Your task to perform on an android device: Check the news Image 0: 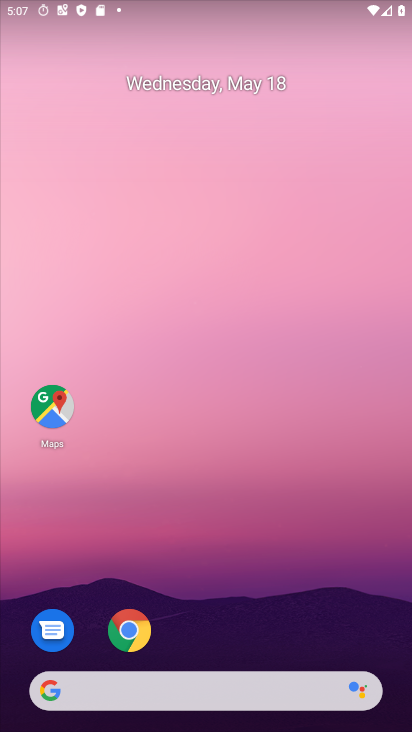
Step 0: drag from (172, 662) to (199, 298)
Your task to perform on an android device: Check the news Image 1: 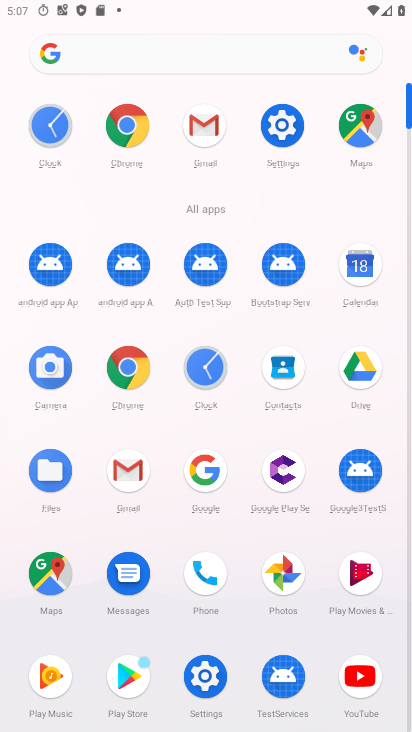
Step 1: click (188, 472)
Your task to perform on an android device: Check the news Image 2: 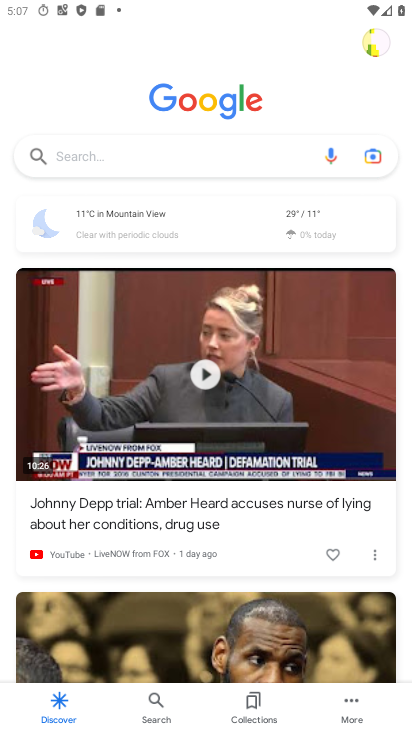
Step 2: click (136, 151)
Your task to perform on an android device: Check the news Image 3: 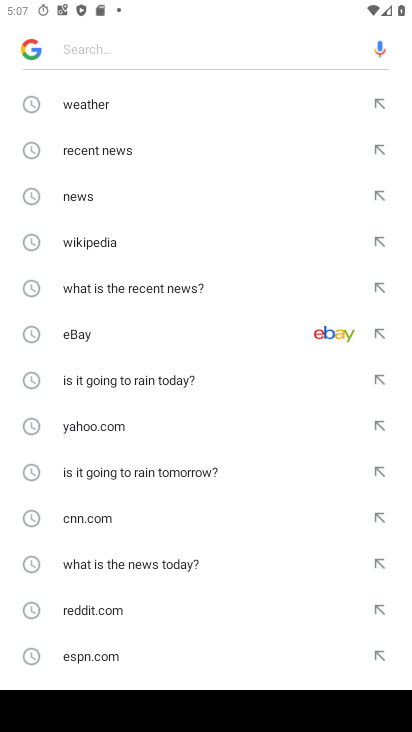
Step 3: drag from (91, 643) to (119, 277)
Your task to perform on an android device: Check the news Image 4: 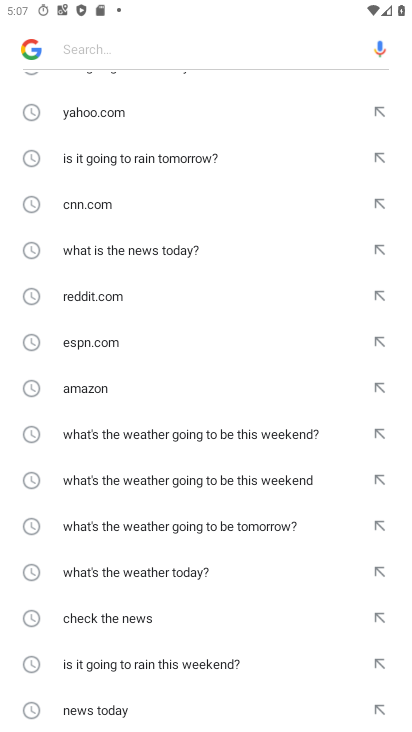
Step 4: drag from (94, 100) to (162, 514)
Your task to perform on an android device: Check the news Image 5: 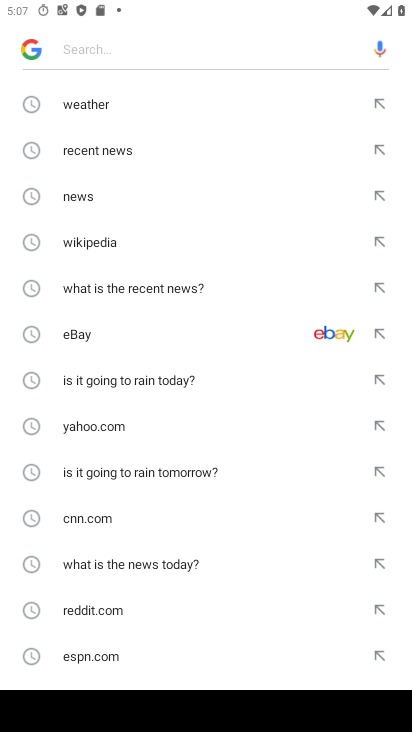
Step 5: click (71, 197)
Your task to perform on an android device: Check the news Image 6: 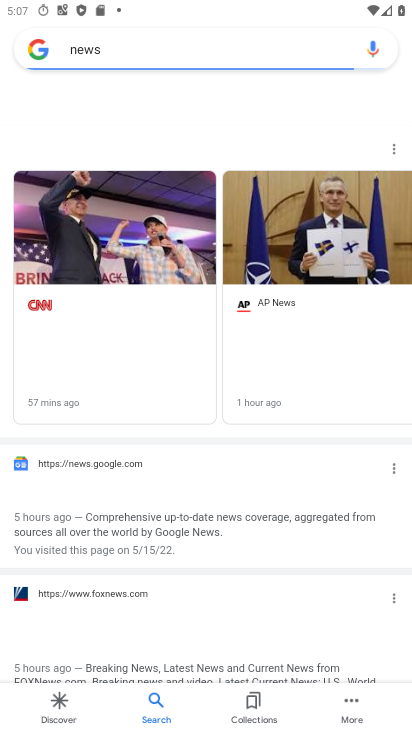
Step 6: task complete